Your task to perform on an android device: turn off airplane mode Image 0: 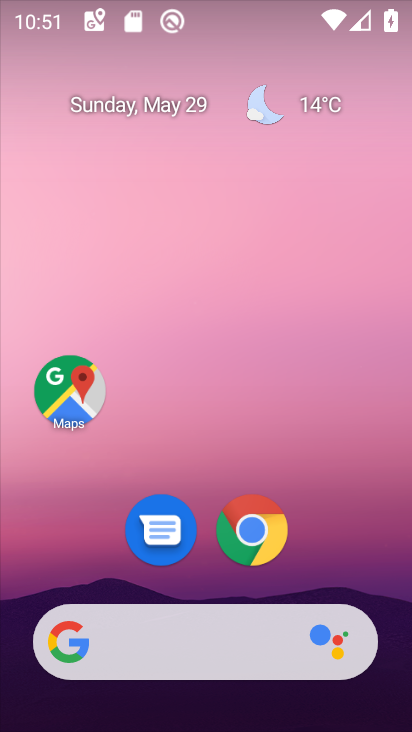
Step 0: drag from (218, 605) to (3, 255)
Your task to perform on an android device: turn off airplane mode Image 1: 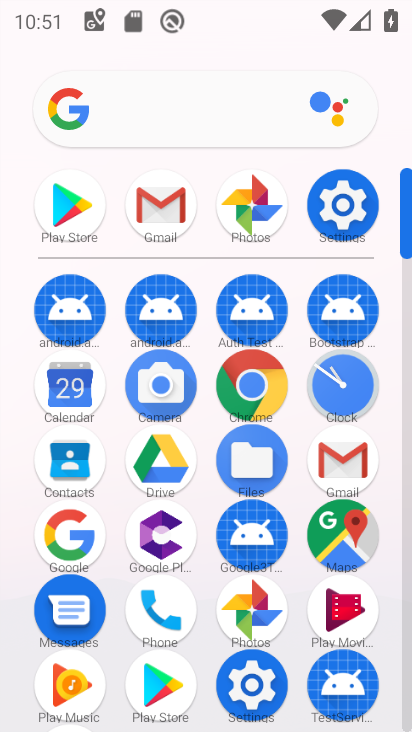
Step 1: click (325, 209)
Your task to perform on an android device: turn off airplane mode Image 2: 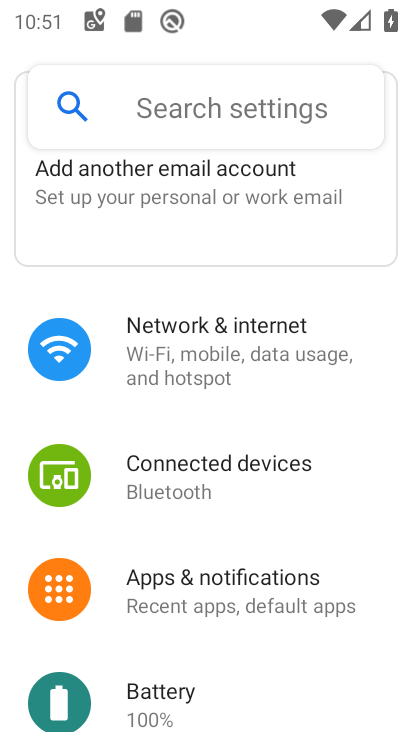
Step 2: click (196, 355)
Your task to perform on an android device: turn off airplane mode Image 3: 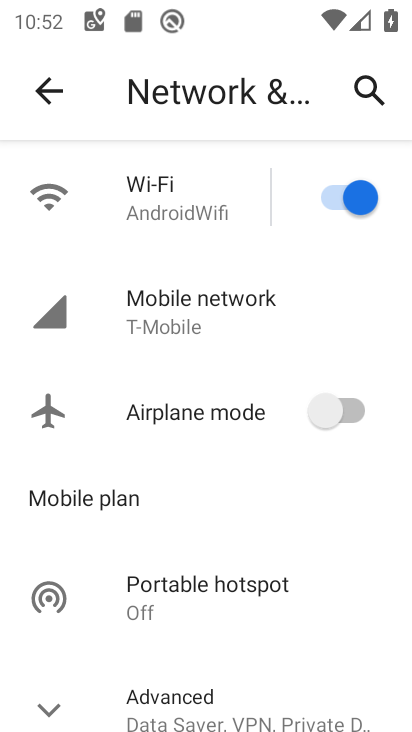
Step 3: task complete